Your task to perform on an android device: turn on sleep mode Image 0: 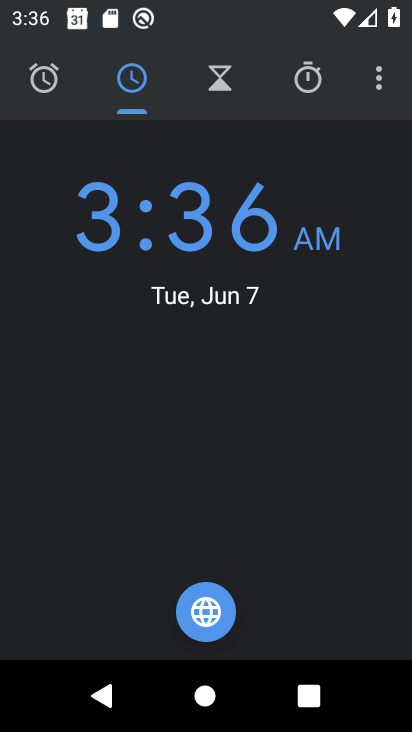
Step 0: press home button
Your task to perform on an android device: turn on sleep mode Image 1: 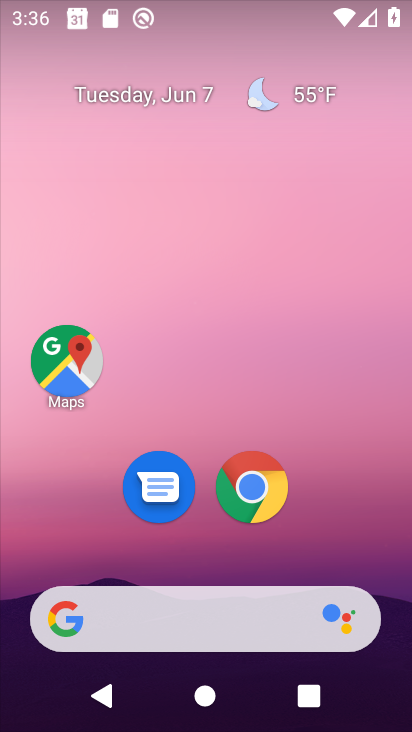
Step 1: drag from (331, 530) to (323, 96)
Your task to perform on an android device: turn on sleep mode Image 2: 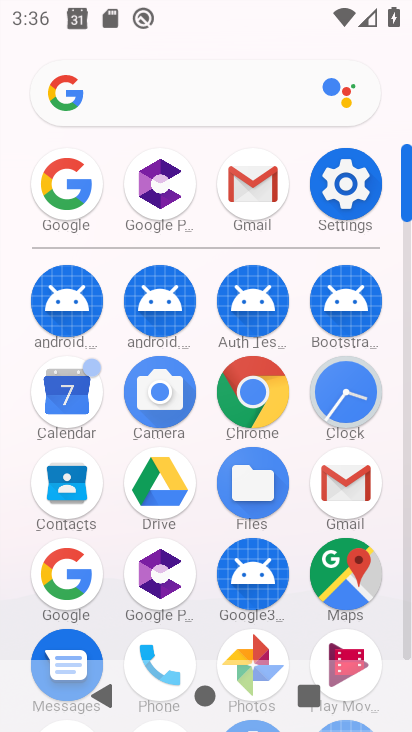
Step 2: click (342, 187)
Your task to perform on an android device: turn on sleep mode Image 3: 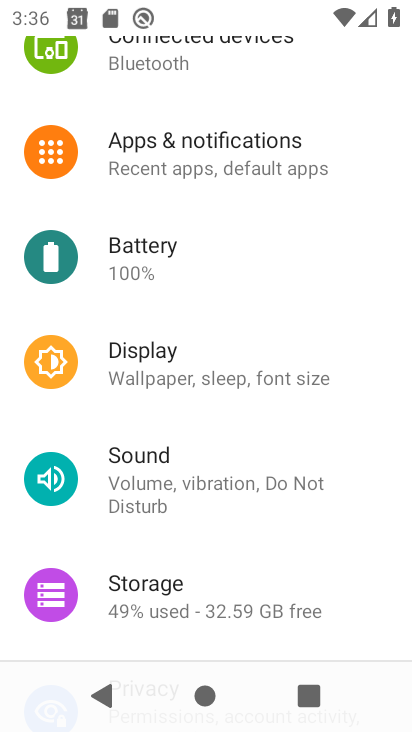
Step 3: click (211, 366)
Your task to perform on an android device: turn on sleep mode Image 4: 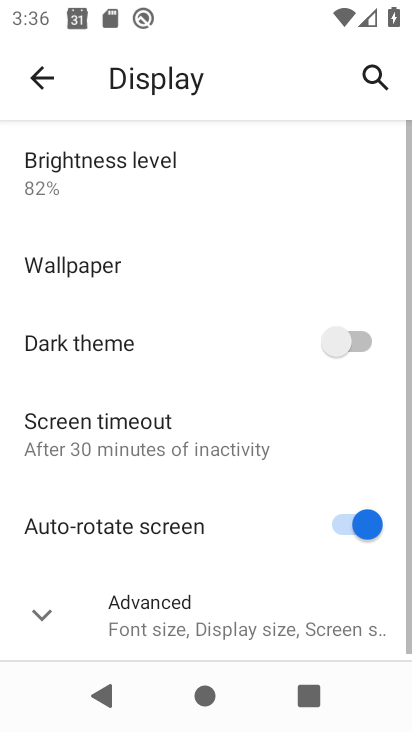
Step 4: click (164, 421)
Your task to perform on an android device: turn on sleep mode Image 5: 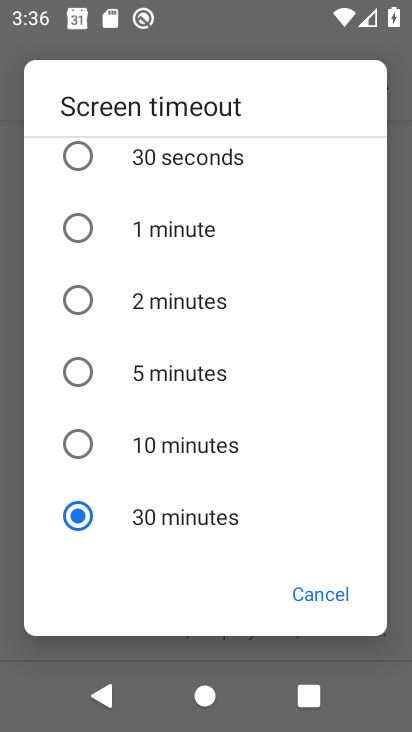
Step 5: task complete